Your task to perform on an android device: see sites visited before in the chrome app Image 0: 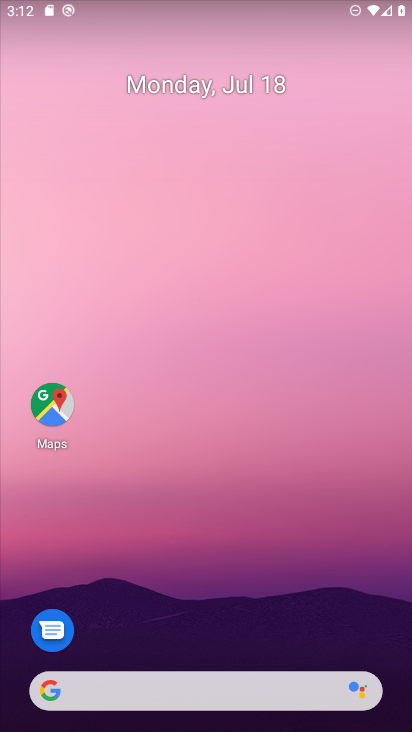
Step 0: drag from (334, 700) to (344, 29)
Your task to perform on an android device: see sites visited before in the chrome app Image 1: 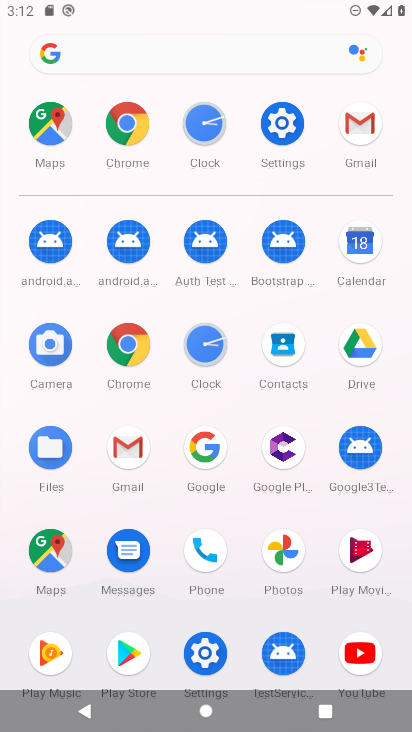
Step 1: click (134, 349)
Your task to perform on an android device: see sites visited before in the chrome app Image 2: 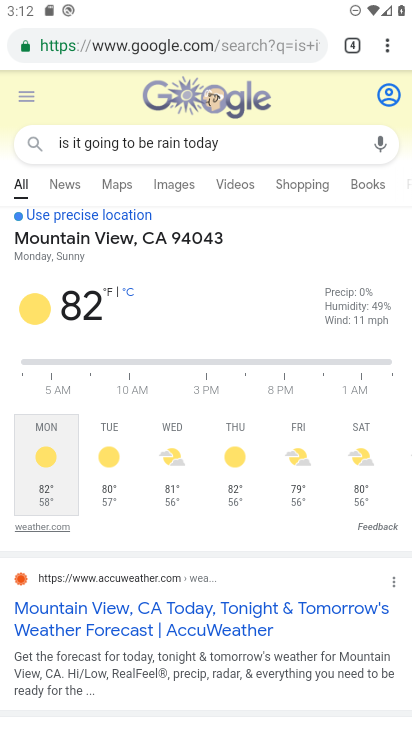
Step 2: click (388, 42)
Your task to perform on an android device: see sites visited before in the chrome app Image 3: 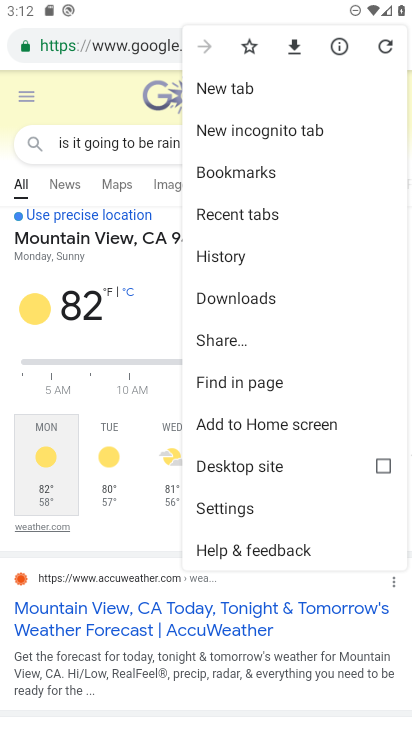
Step 3: click (263, 211)
Your task to perform on an android device: see sites visited before in the chrome app Image 4: 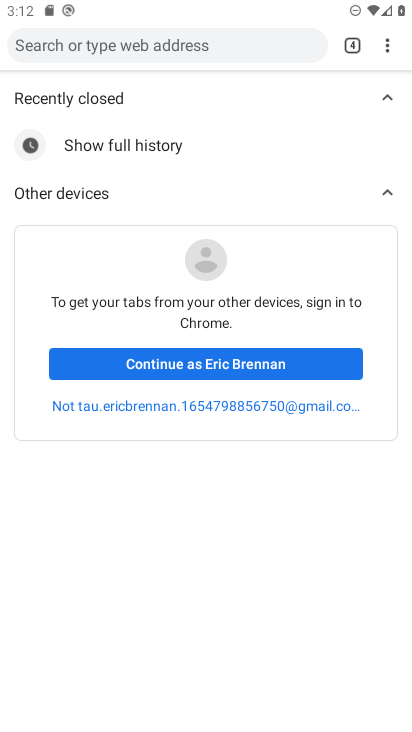
Step 4: task complete